Your task to perform on an android device: toggle sleep mode Image 0: 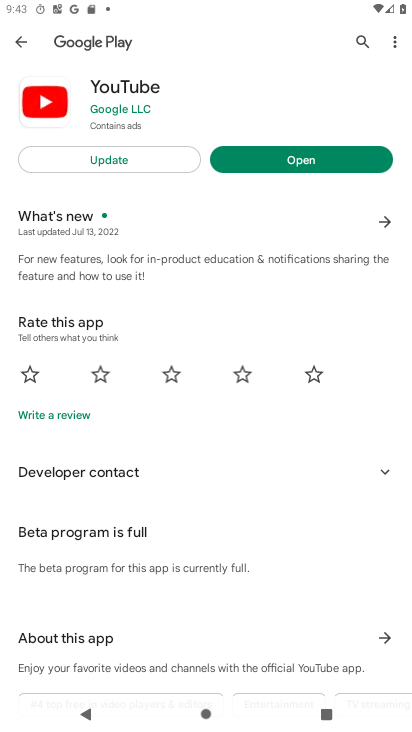
Step 0: drag from (211, 12) to (8, 368)
Your task to perform on an android device: toggle sleep mode Image 1: 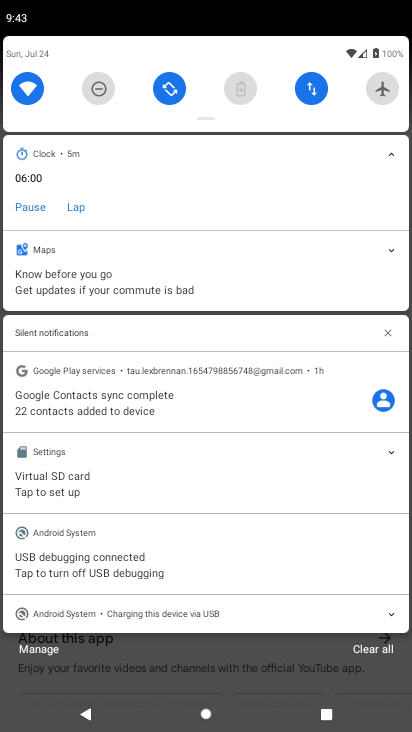
Step 1: drag from (203, 58) to (176, 580)
Your task to perform on an android device: toggle sleep mode Image 2: 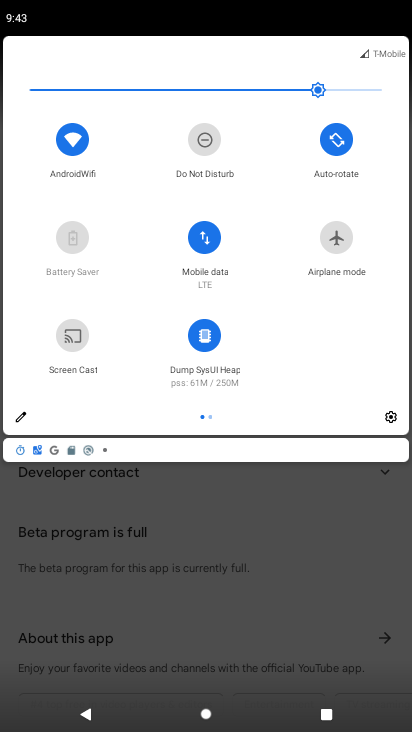
Step 2: click (384, 416)
Your task to perform on an android device: toggle sleep mode Image 3: 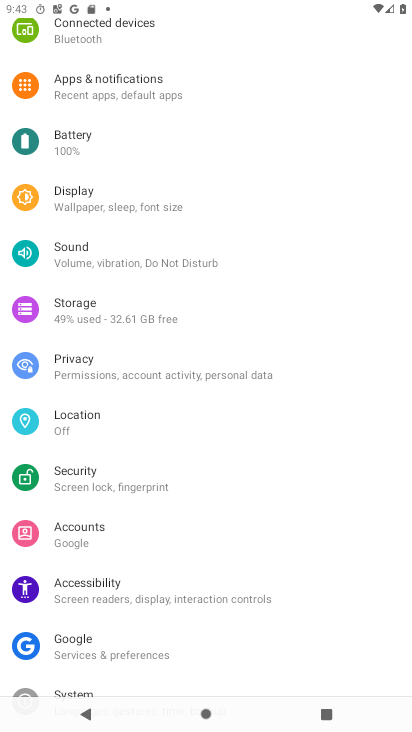
Step 3: task complete